Your task to perform on an android device: check the backup settings in the google photos Image 0: 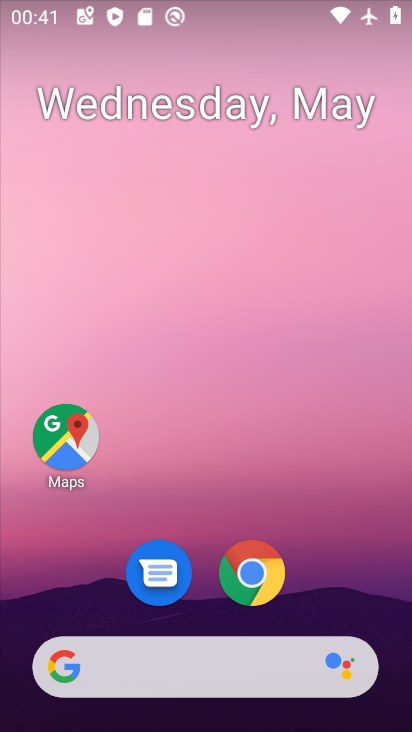
Step 0: drag from (311, 564) to (312, 250)
Your task to perform on an android device: check the backup settings in the google photos Image 1: 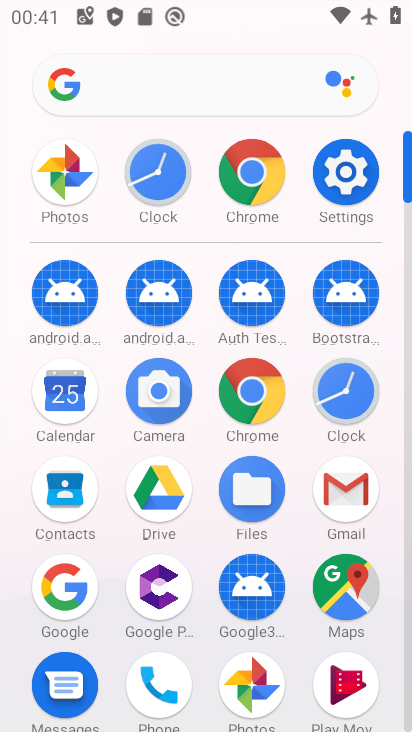
Step 1: click (248, 667)
Your task to perform on an android device: check the backup settings in the google photos Image 2: 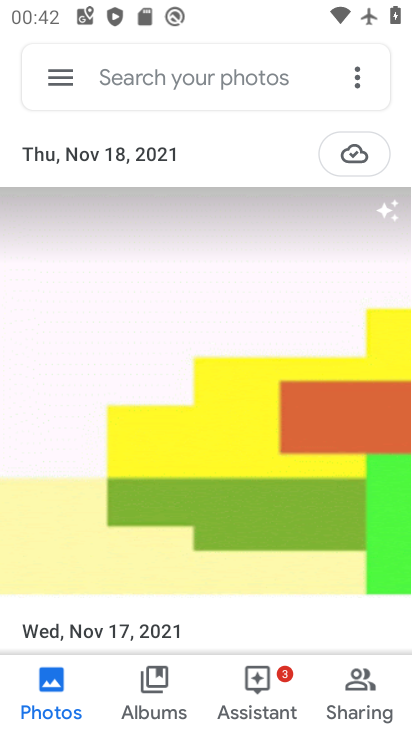
Step 2: click (55, 69)
Your task to perform on an android device: check the backup settings in the google photos Image 3: 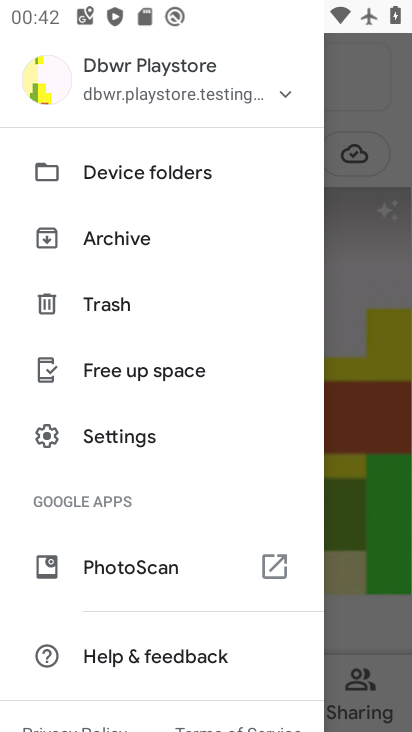
Step 3: click (142, 418)
Your task to perform on an android device: check the backup settings in the google photos Image 4: 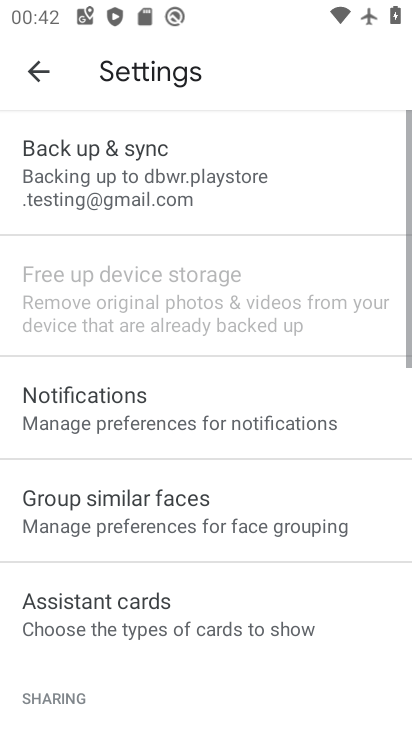
Step 4: click (116, 159)
Your task to perform on an android device: check the backup settings in the google photos Image 5: 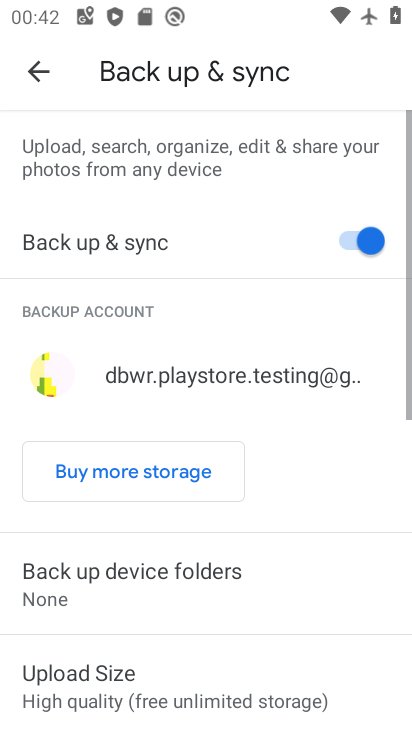
Step 5: task complete